Your task to perform on an android device: change alarm snooze length Image 0: 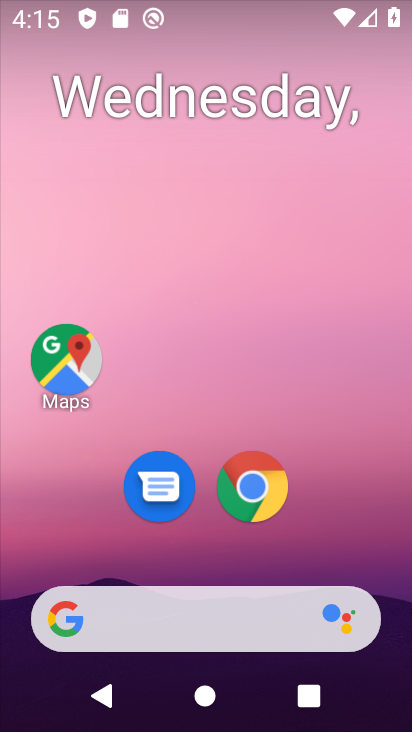
Step 0: drag from (350, 545) to (329, 17)
Your task to perform on an android device: change alarm snooze length Image 1: 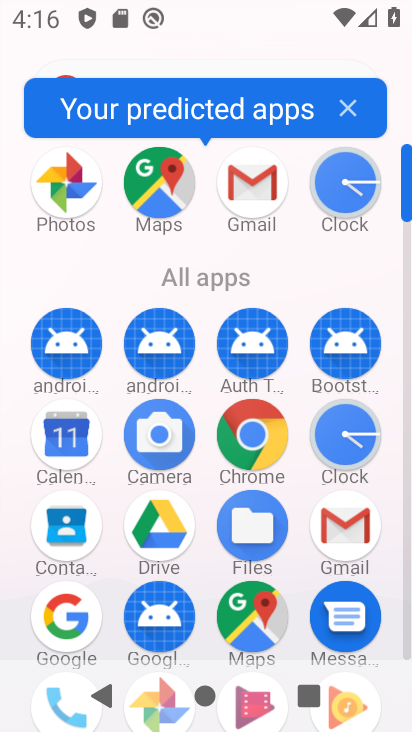
Step 1: drag from (278, 308) to (276, 48)
Your task to perform on an android device: change alarm snooze length Image 2: 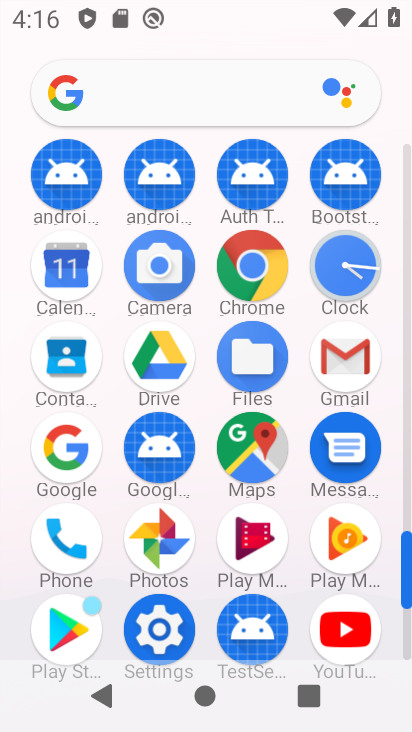
Step 2: click (346, 265)
Your task to perform on an android device: change alarm snooze length Image 3: 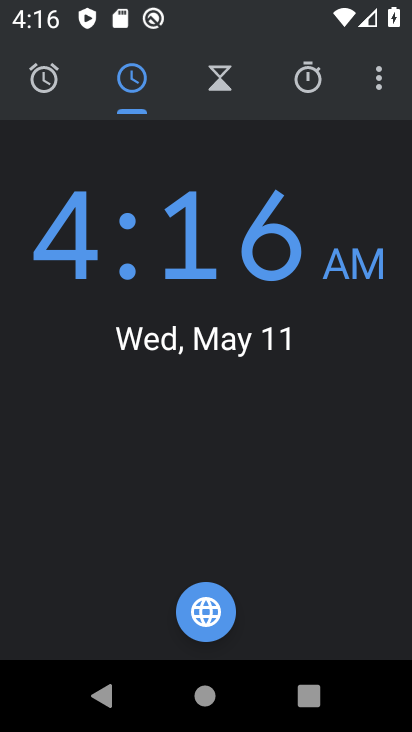
Step 3: click (379, 76)
Your task to perform on an android device: change alarm snooze length Image 4: 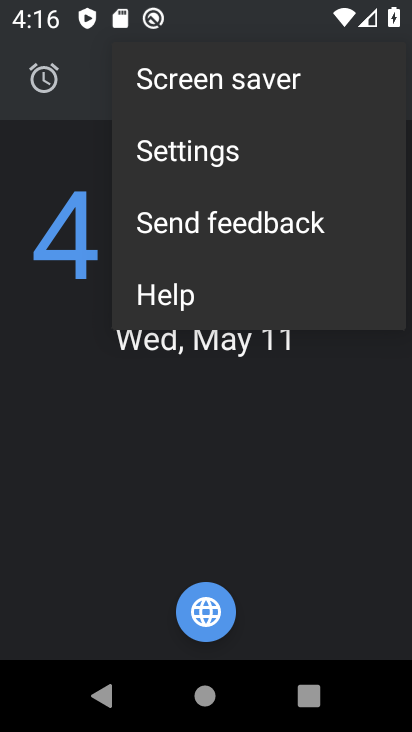
Step 4: click (201, 159)
Your task to perform on an android device: change alarm snooze length Image 5: 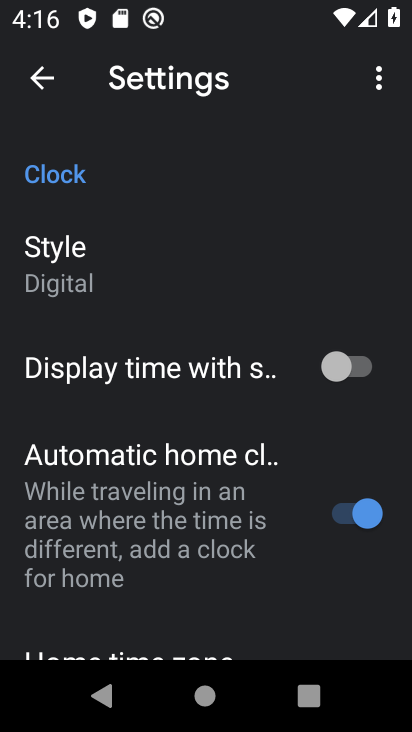
Step 5: drag from (166, 593) to (233, 359)
Your task to perform on an android device: change alarm snooze length Image 6: 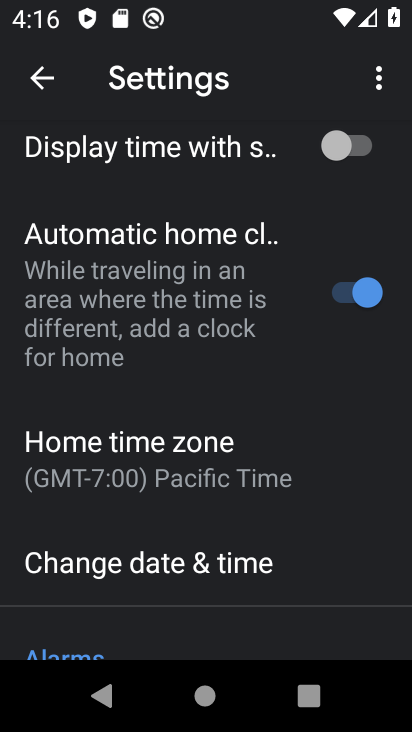
Step 6: drag from (159, 534) to (233, 380)
Your task to perform on an android device: change alarm snooze length Image 7: 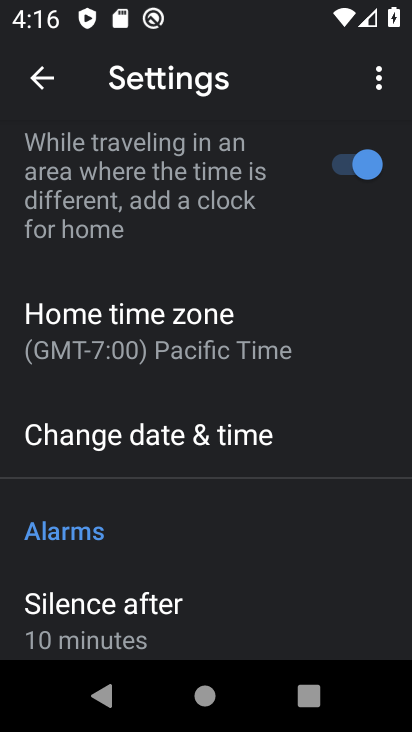
Step 7: drag from (196, 518) to (287, 370)
Your task to perform on an android device: change alarm snooze length Image 8: 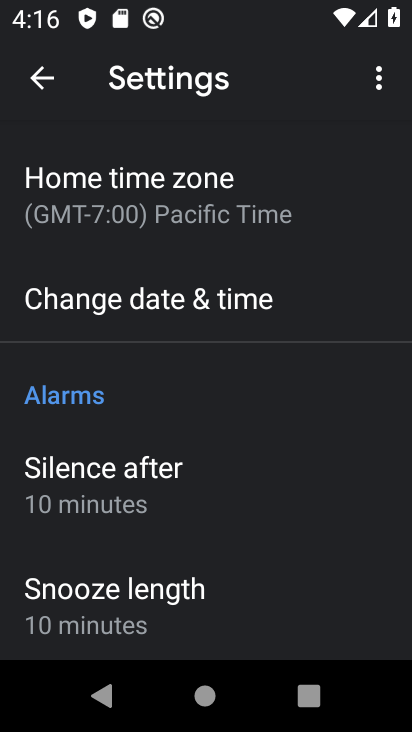
Step 8: drag from (147, 548) to (269, 395)
Your task to perform on an android device: change alarm snooze length Image 9: 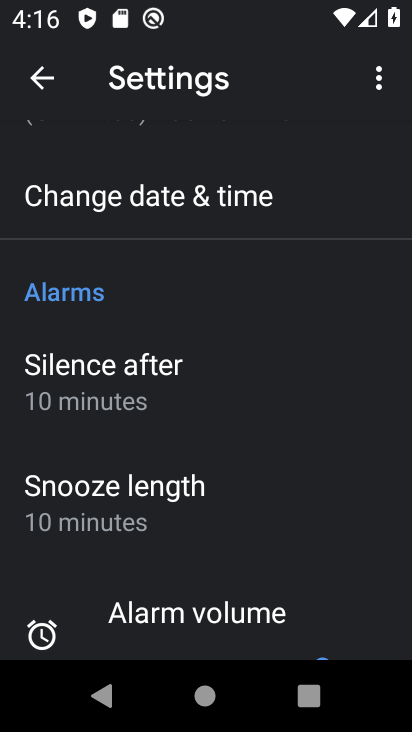
Step 9: click (108, 485)
Your task to perform on an android device: change alarm snooze length Image 10: 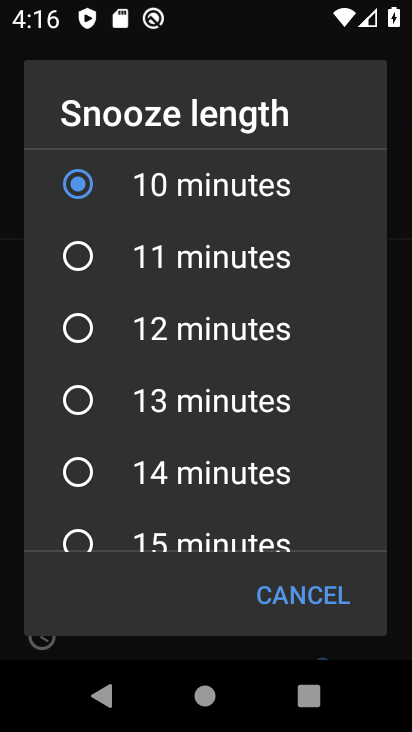
Step 10: click (85, 397)
Your task to perform on an android device: change alarm snooze length Image 11: 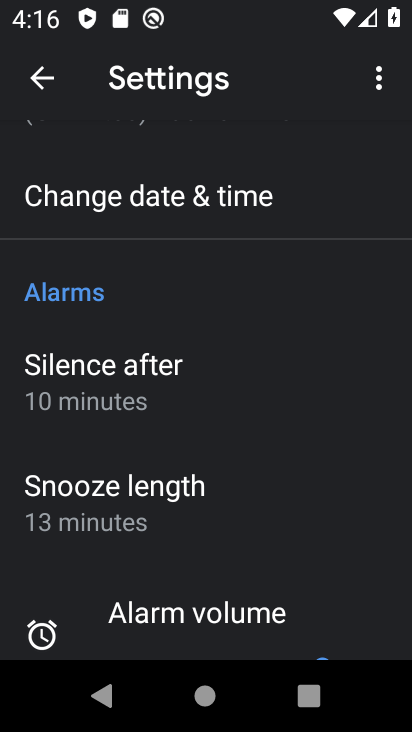
Step 11: task complete